Your task to perform on an android device: change the clock display to show seconds Image 0: 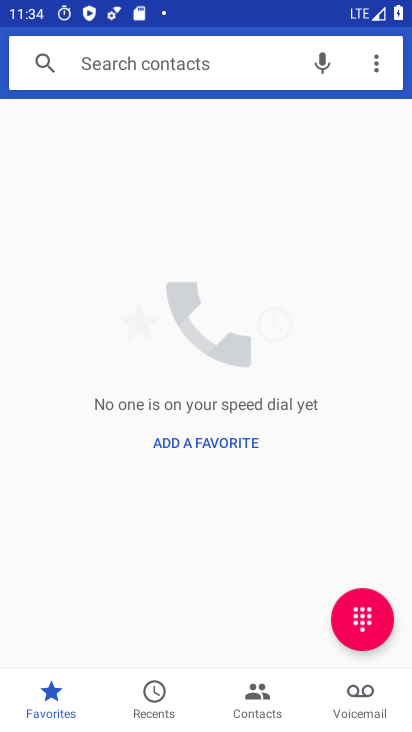
Step 0: press home button
Your task to perform on an android device: change the clock display to show seconds Image 1: 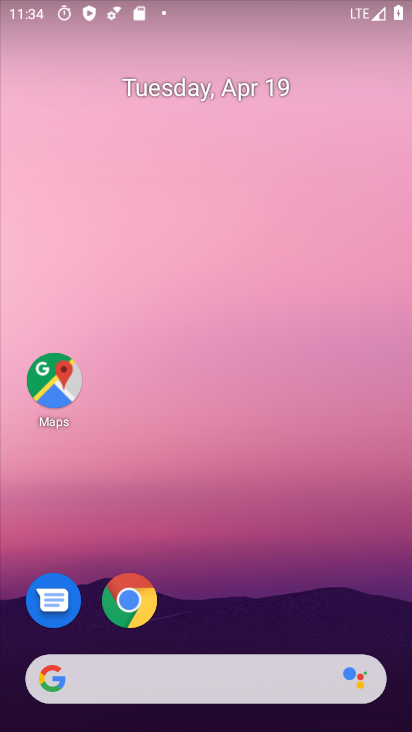
Step 1: drag from (317, 586) to (328, 53)
Your task to perform on an android device: change the clock display to show seconds Image 2: 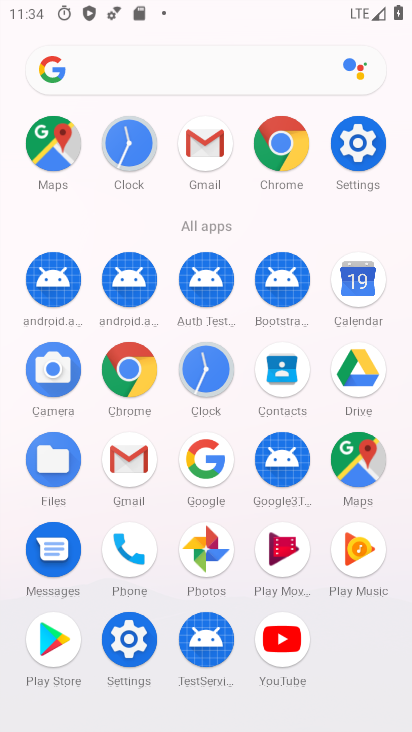
Step 2: click (131, 151)
Your task to perform on an android device: change the clock display to show seconds Image 3: 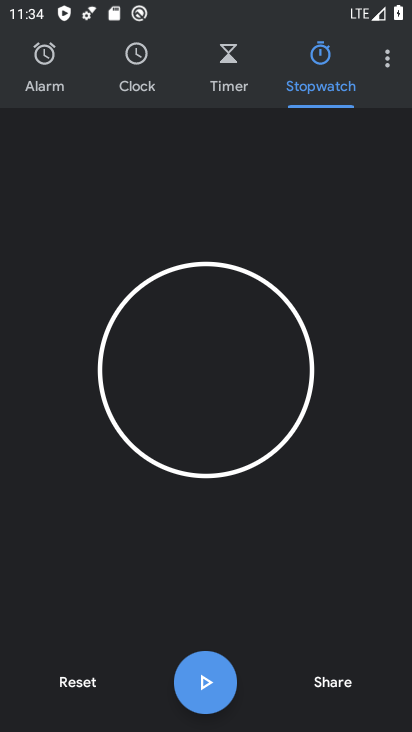
Step 3: click (384, 58)
Your task to perform on an android device: change the clock display to show seconds Image 4: 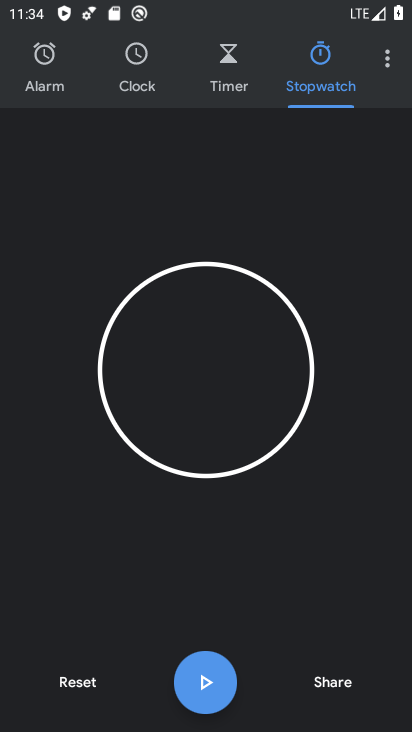
Step 4: click (388, 62)
Your task to perform on an android device: change the clock display to show seconds Image 5: 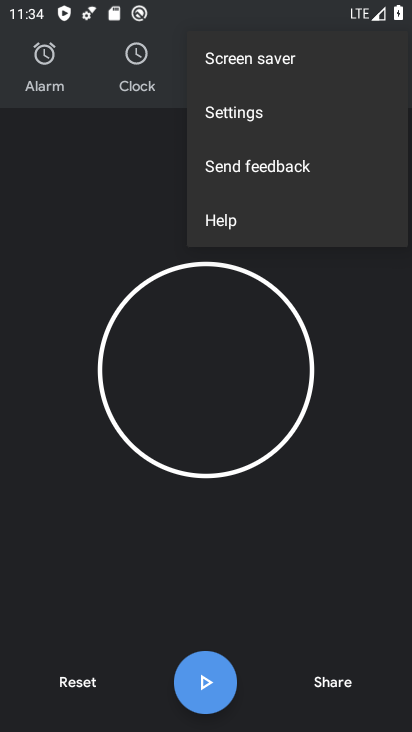
Step 5: click (247, 115)
Your task to perform on an android device: change the clock display to show seconds Image 6: 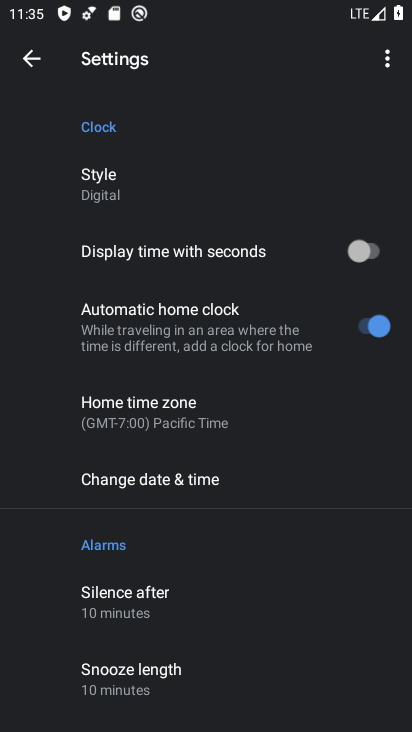
Step 6: click (367, 256)
Your task to perform on an android device: change the clock display to show seconds Image 7: 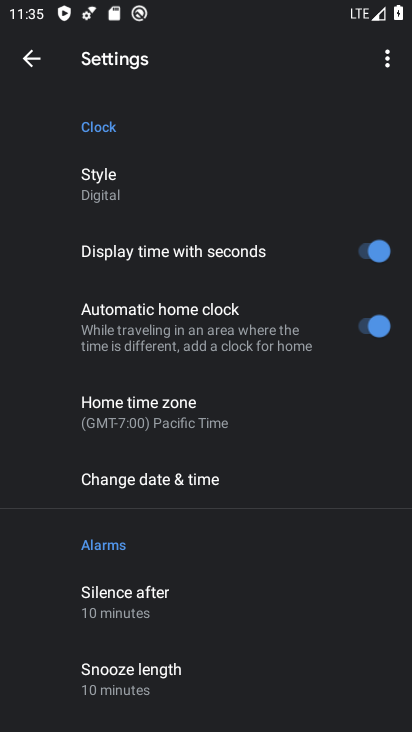
Step 7: task complete